Your task to perform on an android device: Show me popular games on the Play Store Image 0: 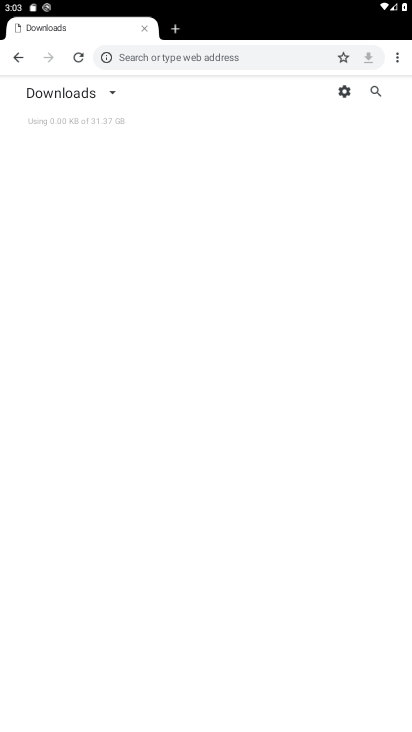
Step 0: press home button
Your task to perform on an android device: Show me popular games on the Play Store Image 1: 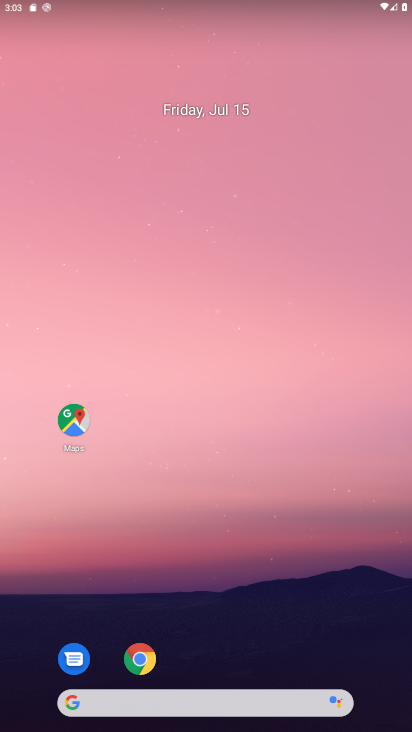
Step 1: drag from (316, 650) to (261, 144)
Your task to perform on an android device: Show me popular games on the Play Store Image 2: 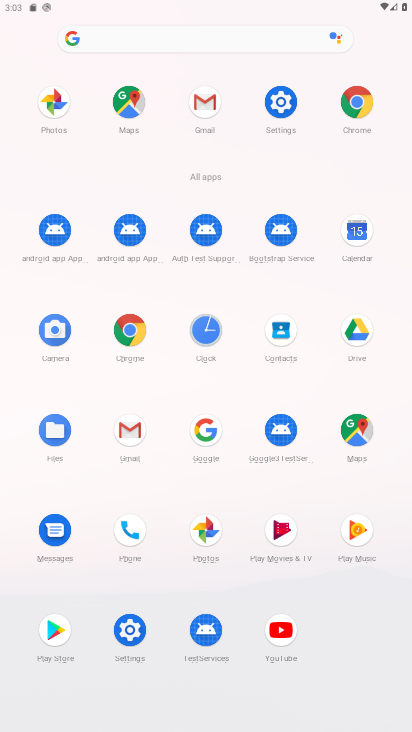
Step 2: click (49, 635)
Your task to perform on an android device: Show me popular games on the Play Store Image 3: 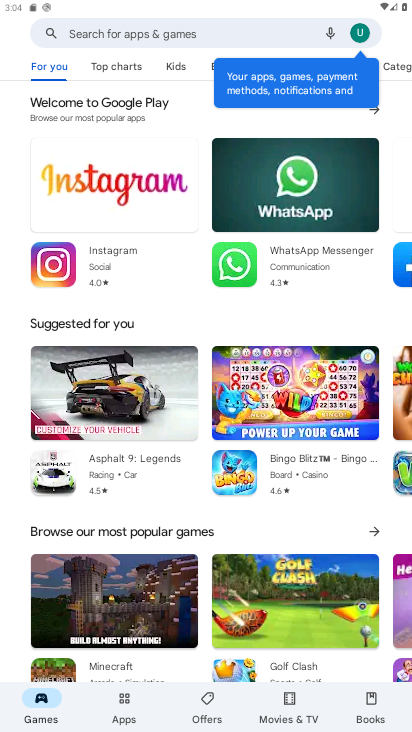
Step 3: click (107, 63)
Your task to perform on an android device: Show me popular games on the Play Store Image 4: 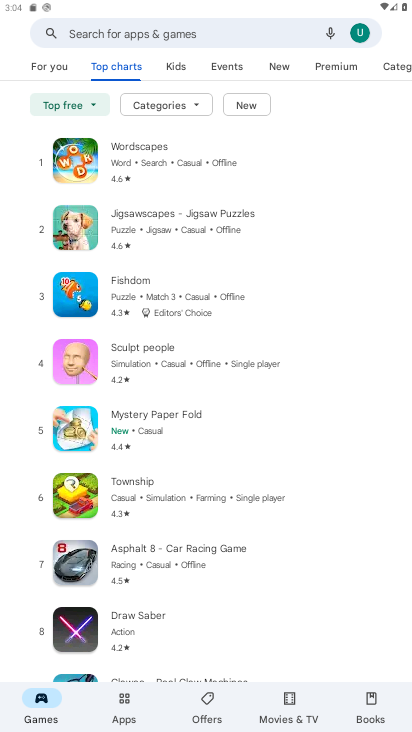
Step 4: task complete